Your task to perform on an android device: Open Youtube and go to the subscriptions tab Image 0: 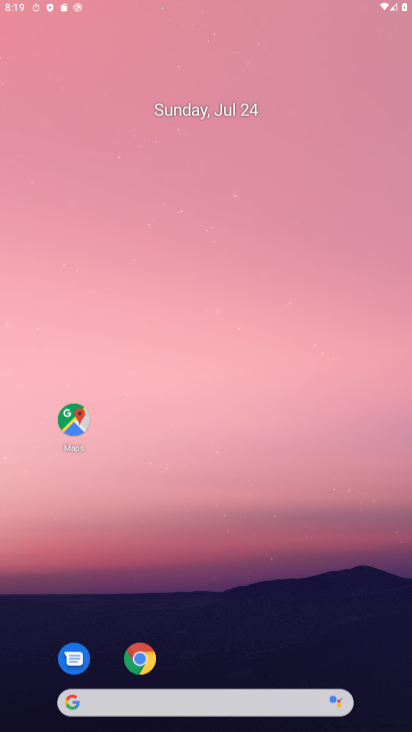
Step 0: click (352, 25)
Your task to perform on an android device: Open Youtube and go to the subscriptions tab Image 1: 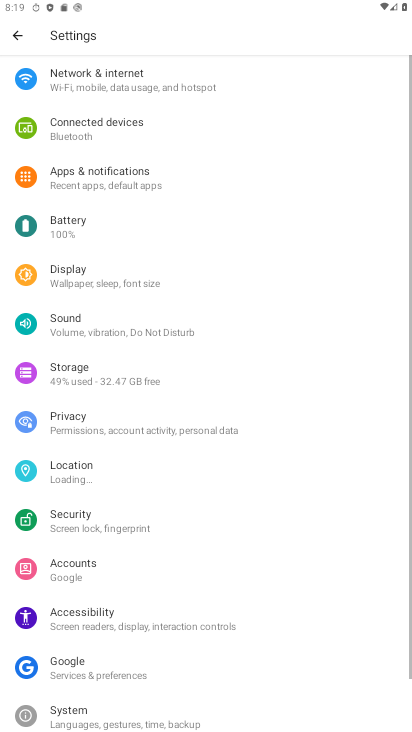
Step 1: drag from (211, 687) to (254, 106)
Your task to perform on an android device: Open Youtube and go to the subscriptions tab Image 2: 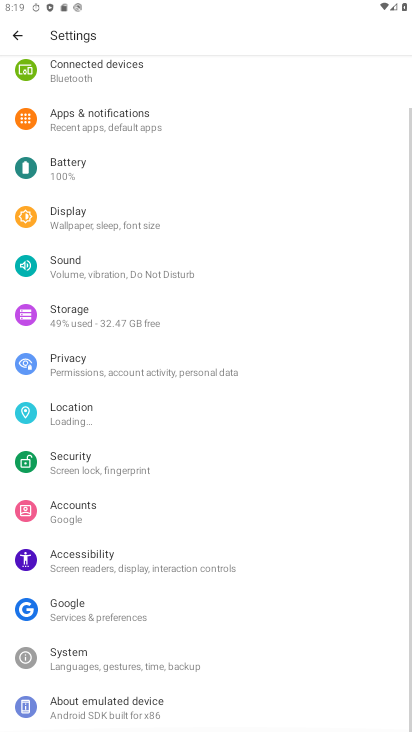
Step 2: press back button
Your task to perform on an android device: Open Youtube and go to the subscriptions tab Image 3: 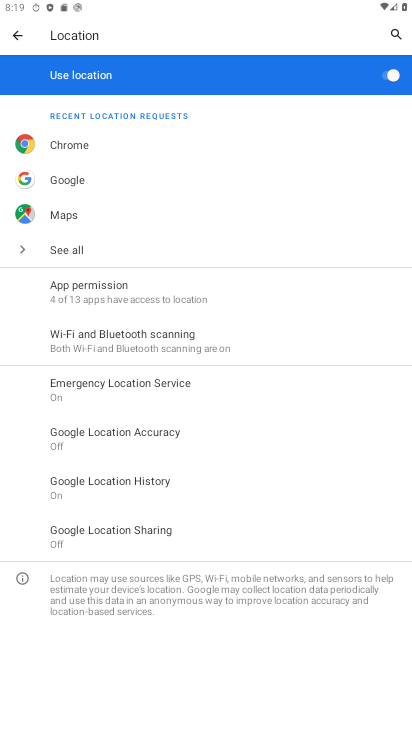
Step 3: press home button
Your task to perform on an android device: Open Youtube and go to the subscriptions tab Image 4: 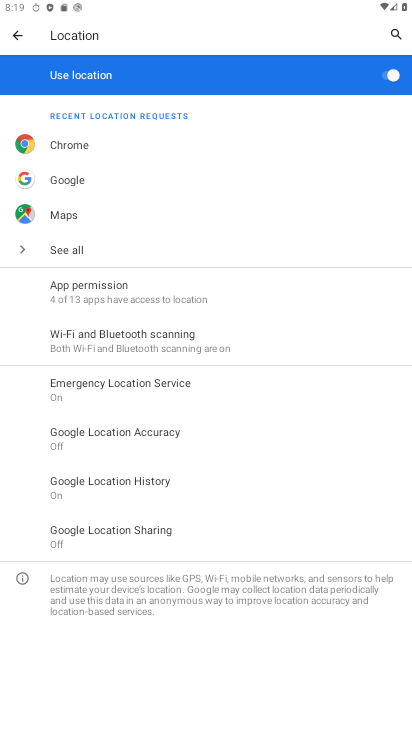
Step 4: press home button
Your task to perform on an android device: Open Youtube and go to the subscriptions tab Image 5: 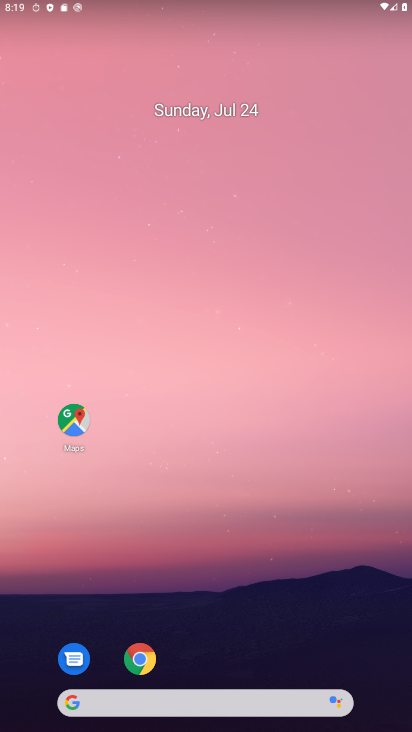
Step 5: drag from (233, 709) to (212, 276)
Your task to perform on an android device: Open Youtube and go to the subscriptions tab Image 6: 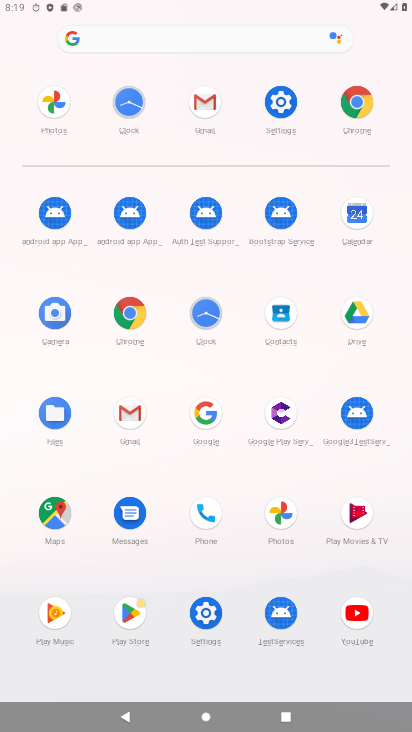
Step 6: click (386, 604)
Your task to perform on an android device: Open Youtube and go to the subscriptions tab Image 7: 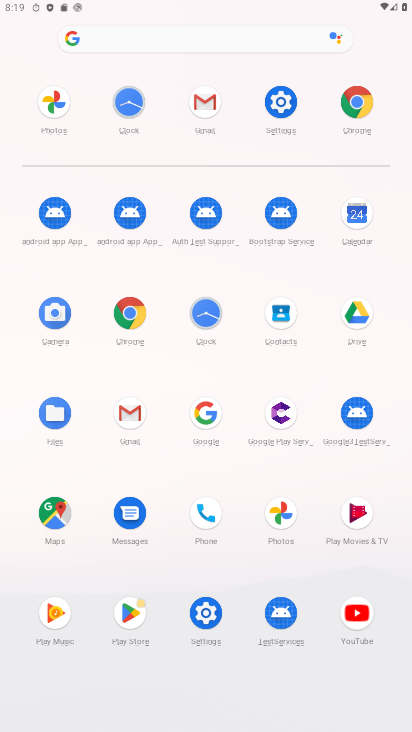
Step 7: click (365, 604)
Your task to perform on an android device: Open Youtube and go to the subscriptions tab Image 8: 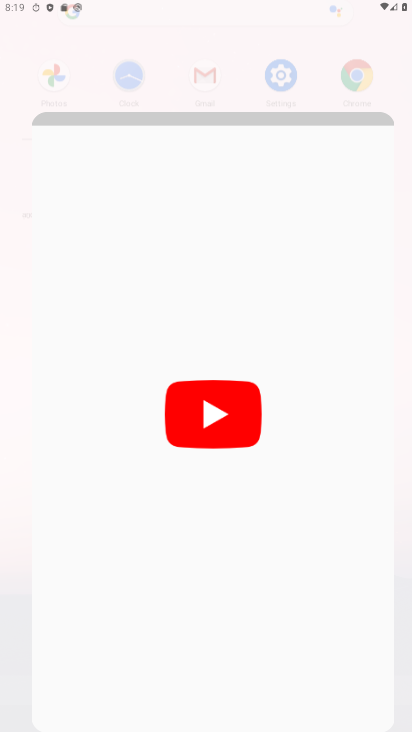
Step 8: click (366, 607)
Your task to perform on an android device: Open Youtube and go to the subscriptions tab Image 9: 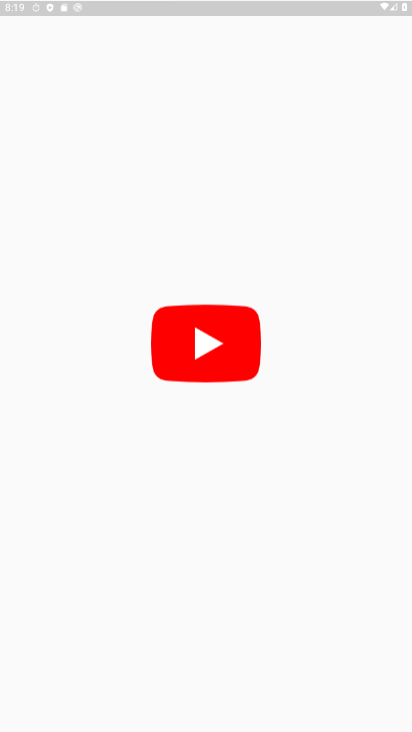
Step 9: click (367, 608)
Your task to perform on an android device: Open Youtube and go to the subscriptions tab Image 10: 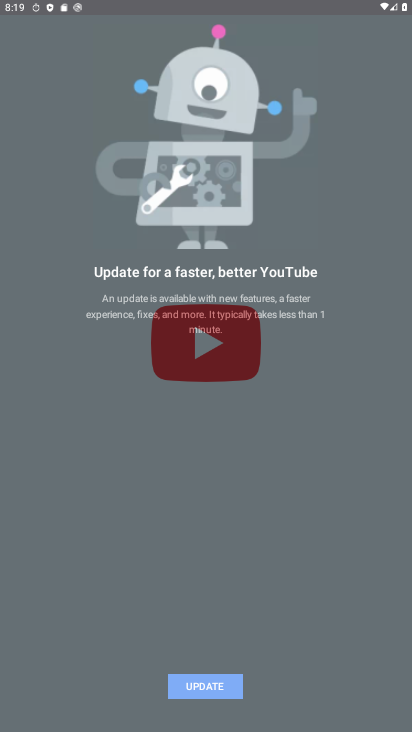
Step 10: click (369, 609)
Your task to perform on an android device: Open Youtube and go to the subscriptions tab Image 11: 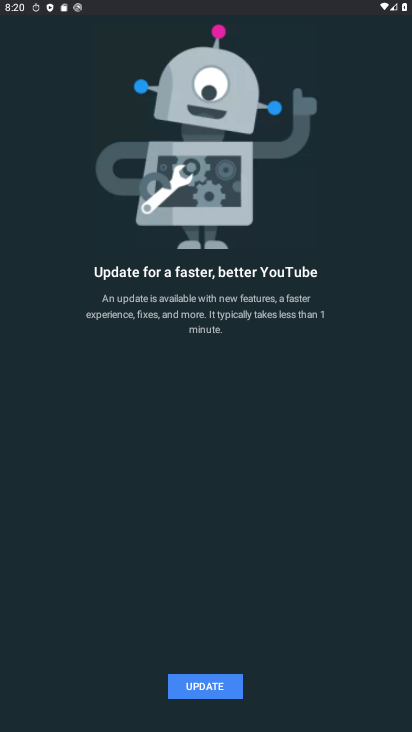
Step 11: click (188, 691)
Your task to perform on an android device: Open Youtube and go to the subscriptions tab Image 12: 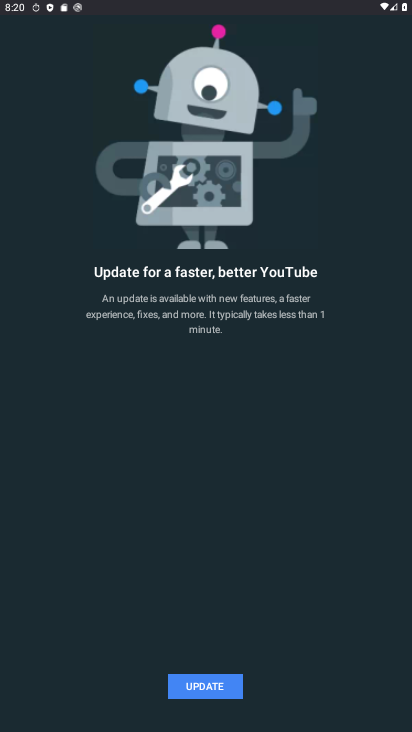
Step 12: click (188, 691)
Your task to perform on an android device: Open Youtube and go to the subscriptions tab Image 13: 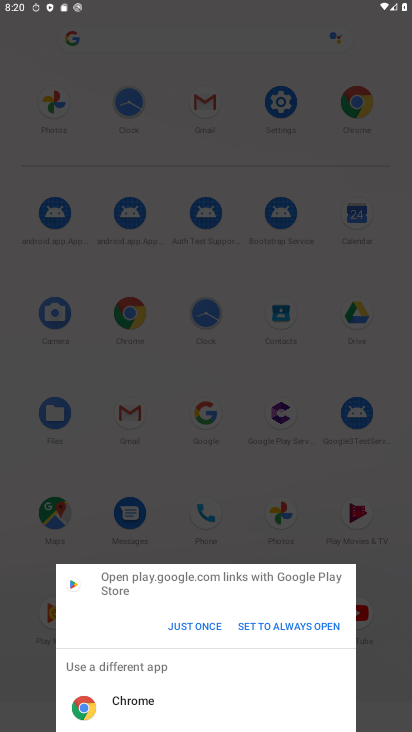
Step 13: click (147, 694)
Your task to perform on an android device: Open Youtube and go to the subscriptions tab Image 14: 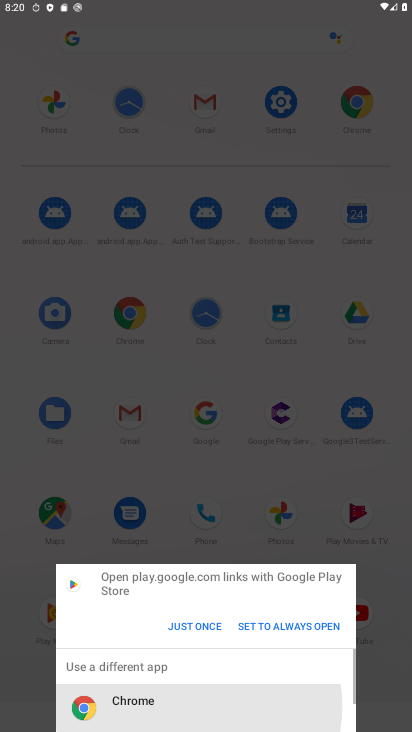
Step 14: click (145, 696)
Your task to perform on an android device: Open Youtube and go to the subscriptions tab Image 15: 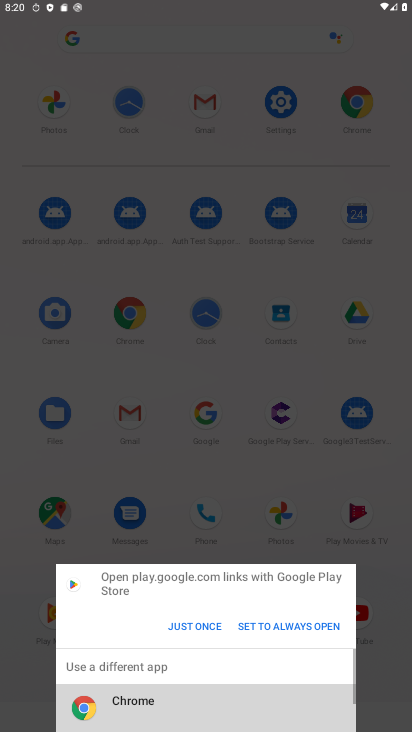
Step 15: click (144, 697)
Your task to perform on an android device: Open Youtube and go to the subscriptions tab Image 16: 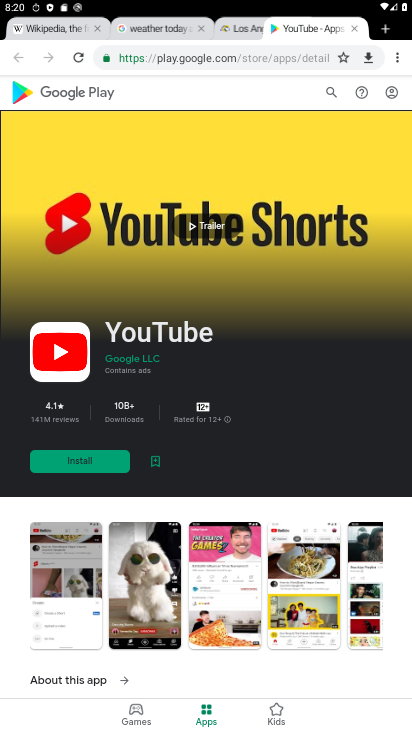
Step 16: drag from (301, 627) to (256, 182)
Your task to perform on an android device: Open Youtube and go to the subscriptions tab Image 17: 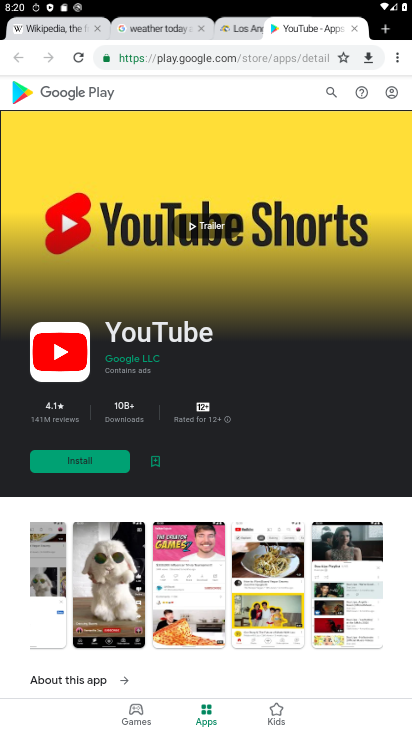
Step 17: drag from (246, 317) to (248, 142)
Your task to perform on an android device: Open Youtube and go to the subscriptions tab Image 18: 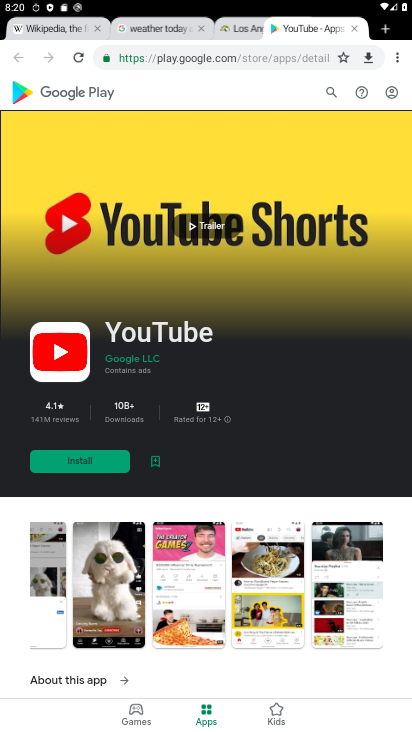
Step 18: drag from (264, 390) to (267, 161)
Your task to perform on an android device: Open Youtube and go to the subscriptions tab Image 19: 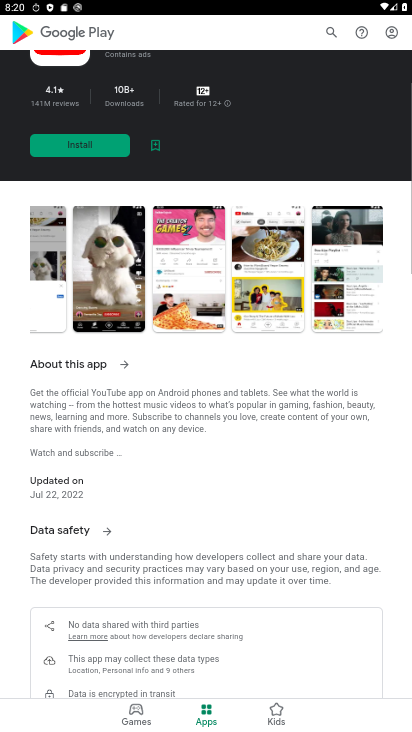
Step 19: drag from (273, 430) to (273, 219)
Your task to perform on an android device: Open Youtube and go to the subscriptions tab Image 20: 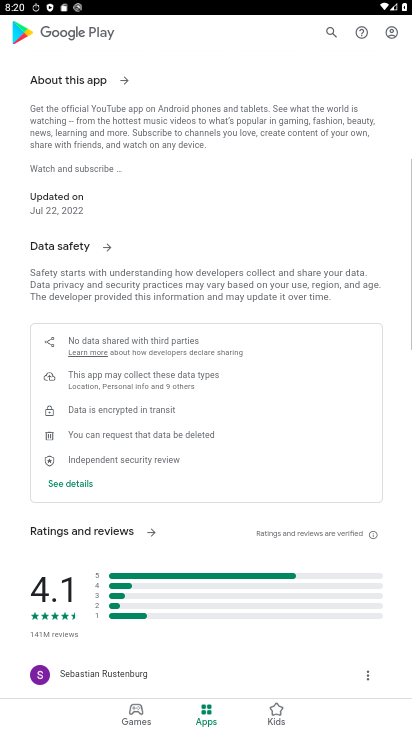
Step 20: drag from (242, 505) to (254, 283)
Your task to perform on an android device: Open Youtube and go to the subscriptions tab Image 21: 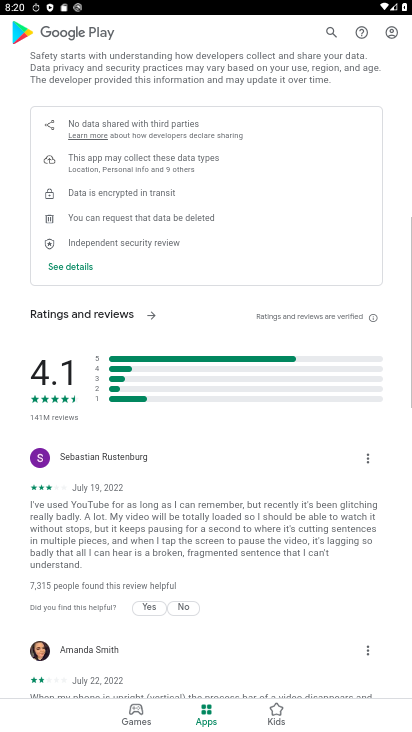
Step 21: drag from (237, 265) to (268, 676)
Your task to perform on an android device: Open Youtube and go to the subscriptions tab Image 22: 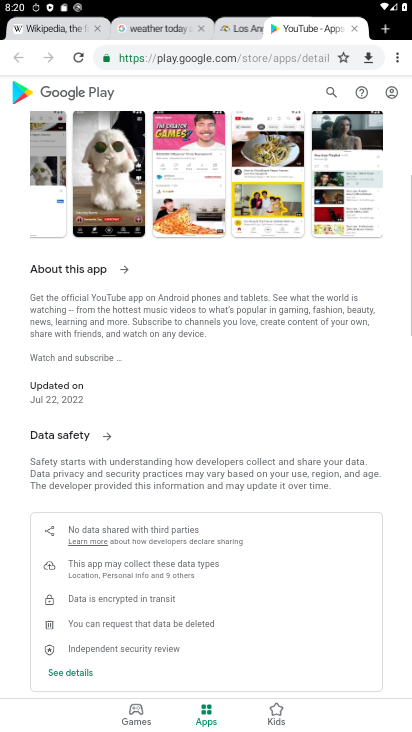
Step 22: drag from (264, 322) to (270, 653)
Your task to perform on an android device: Open Youtube and go to the subscriptions tab Image 23: 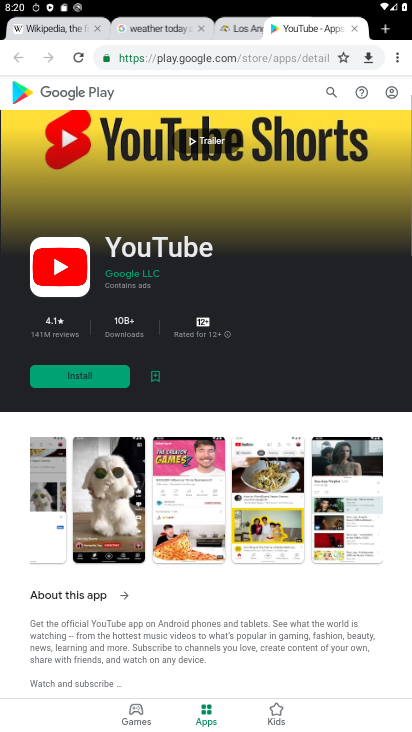
Step 23: drag from (215, 307) to (222, 666)
Your task to perform on an android device: Open Youtube and go to the subscriptions tab Image 24: 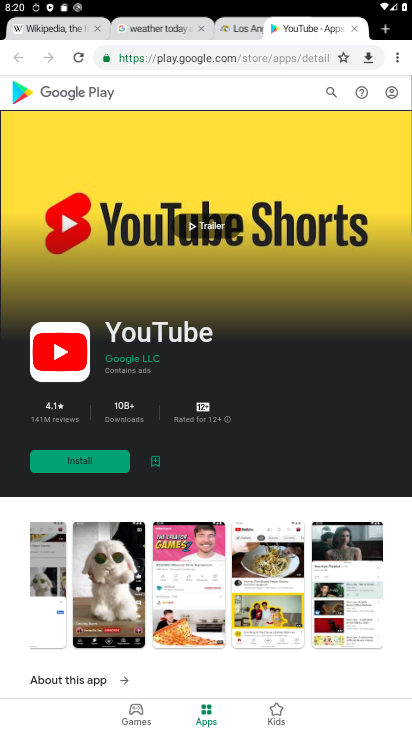
Step 24: drag from (222, 319) to (227, 651)
Your task to perform on an android device: Open Youtube and go to the subscriptions tab Image 25: 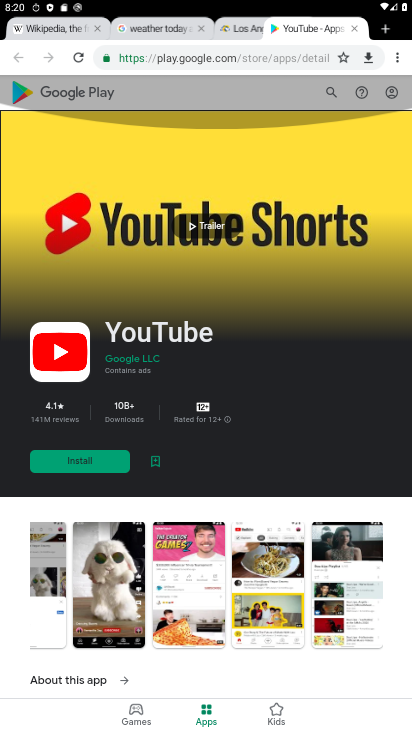
Step 25: drag from (172, 256) to (238, 687)
Your task to perform on an android device: Open Youtube and go to the subscriptions tab Image 26: 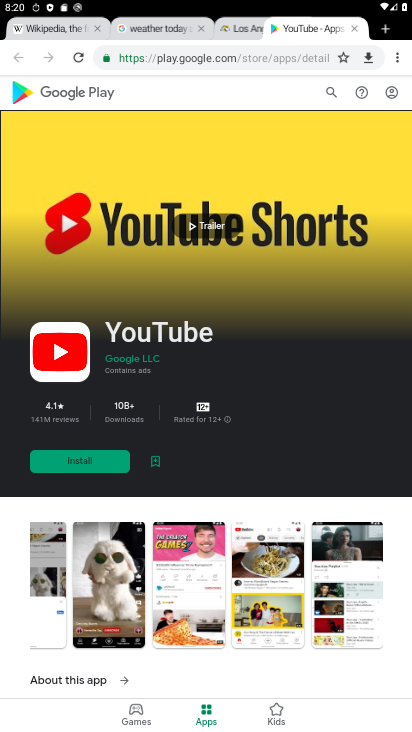
Step 26: click (399, 46)
Your task to perform on an android device: Open Youtube and go to the subscriptions tab Image 27: 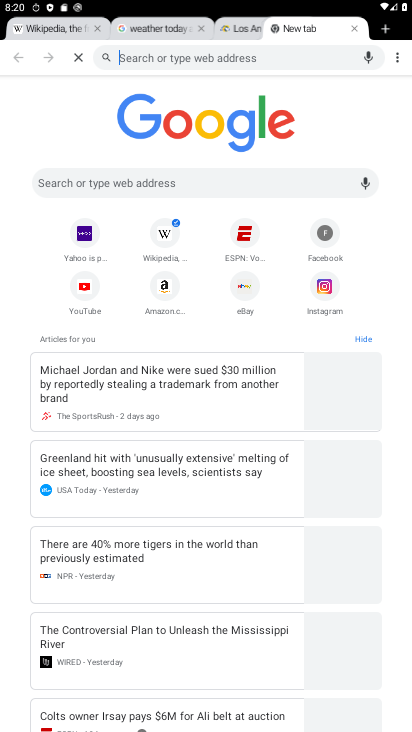
Step 27: click (399, 46)
Your task to perform on an android device: Open Youtube and go to the subscriptions tab Image 28: 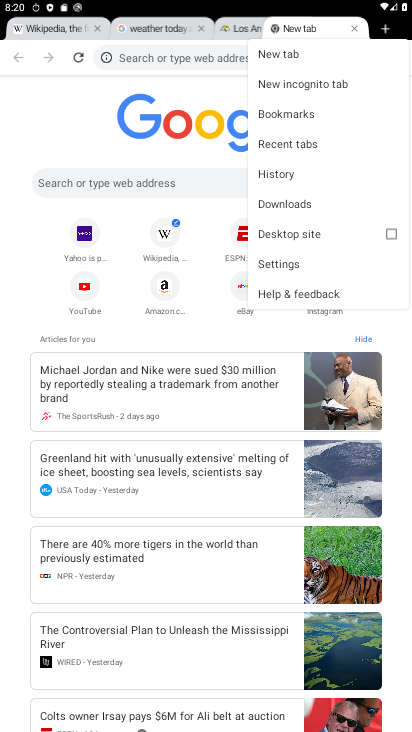
Step 28: click (38, 143)
Your task to perform on an android device: Open Youtube and go to the subscriptions tab Image 29: 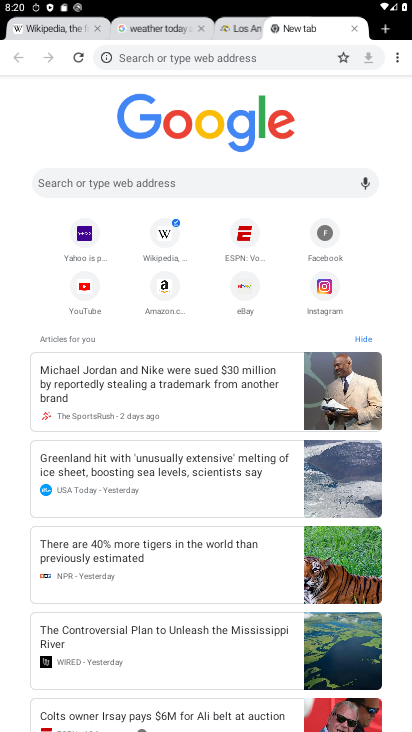
Step 29: task complete